Your task to perform on an android device: toggle javascript in the chrome app Image 0: 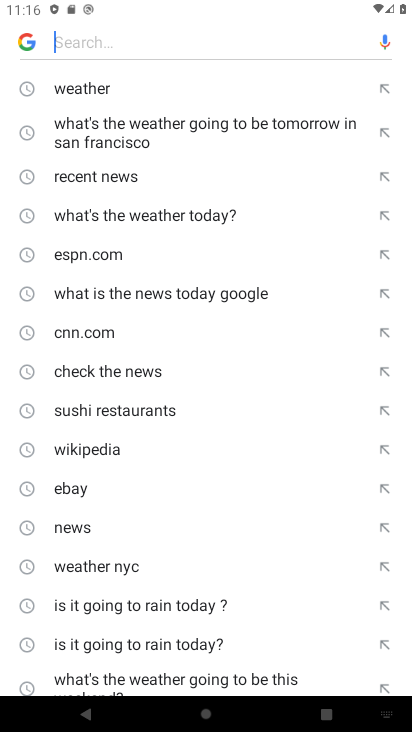
Step 0: press home button
Your task to perform on an android device: toggle javascript in the chrome app Image 1: 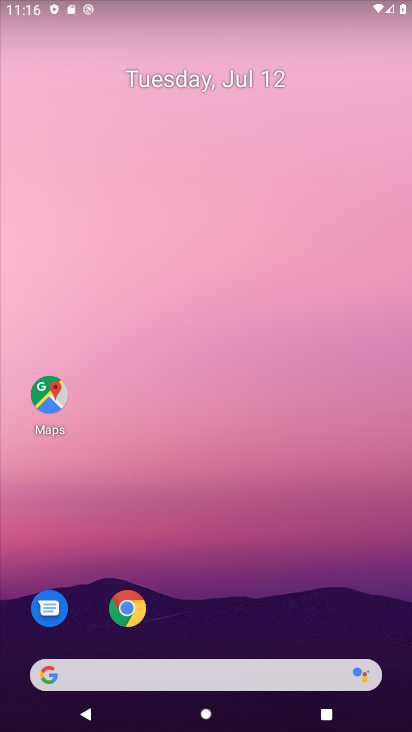
Step 1: drag from (230, 671) to (224, 103)
Your task to perform on an android device: toggle javascript in the chrome app Image 2: 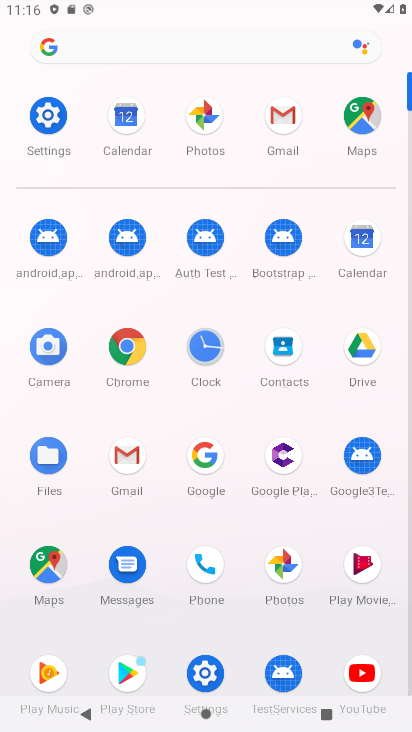
Step 2: click (125, 348)
Your task to perform on an android device: toggle javascript in the chrome app Image 3: 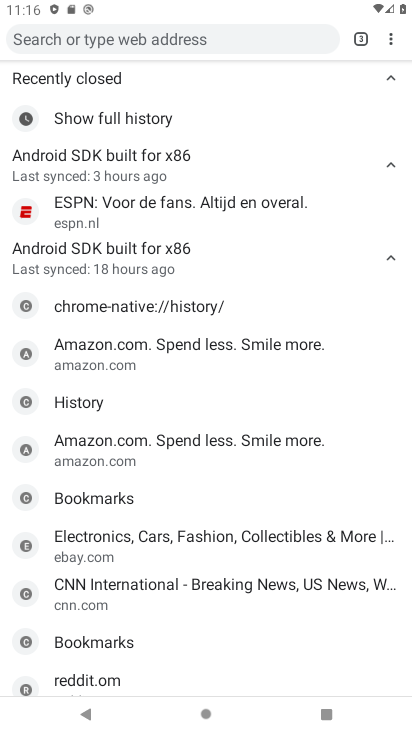
Step 3: click (394, 43)
Your task to perform on an android device: toggle javascript in the chrome app Image 4: 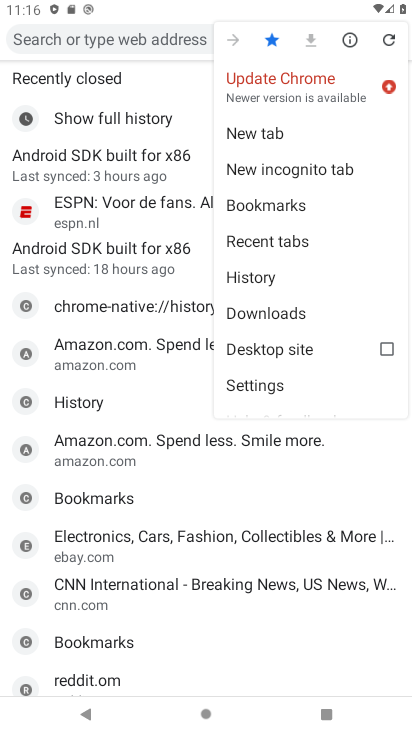
Step 4: click (262, 385)
Your task to perform on an android device: toggle javascript in the chrome app Image 5: 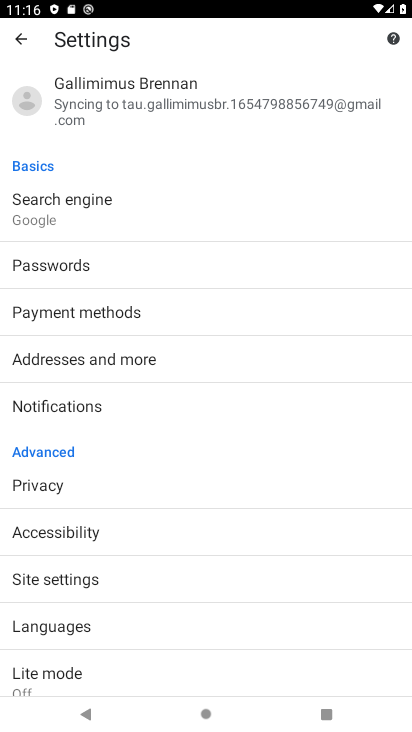
Step 5: click (64, 579)
Your task to perform on an android device: toggle javascript in the chrome app Image 6: 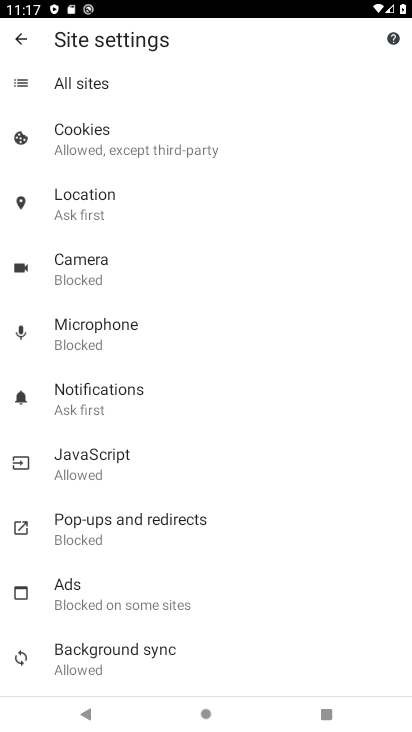
Step 6: click (79, 467)
Your task to perform on an android device: toggle javascript in the chrome app Image 7: 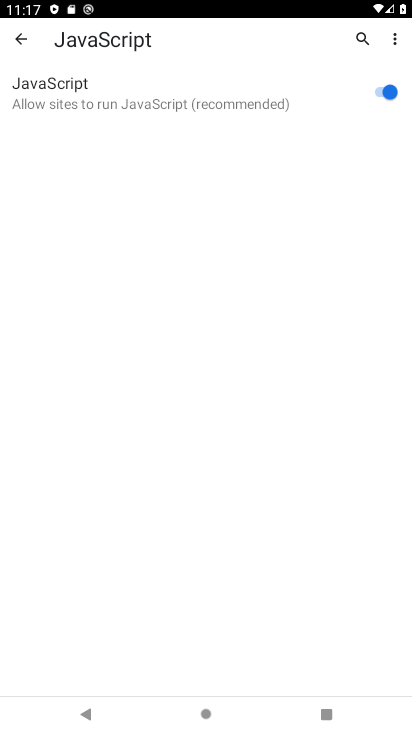
Step 7: click (379, 91)
Your task to perform on an android device: toggle javascript in the chrome app Image 8: 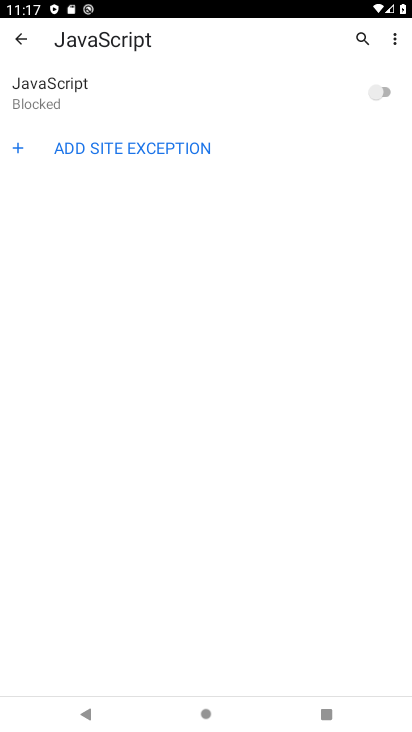
Step 8: task complete